Your task to perform on an android device: open wifi settings Image 0: 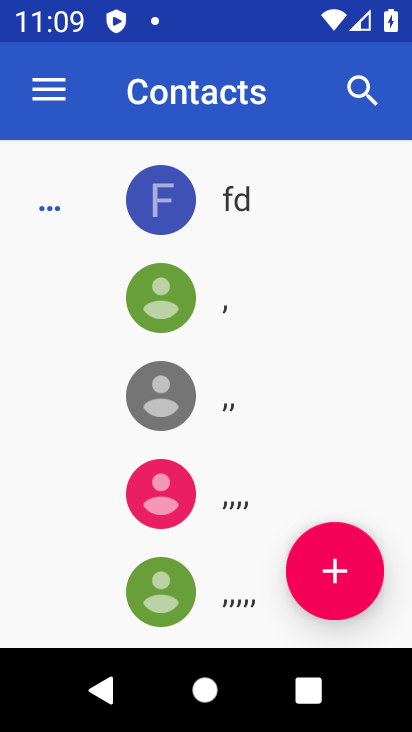
Step 0: press home button
Your task to perform on an android device: open wifi settings Image 1: 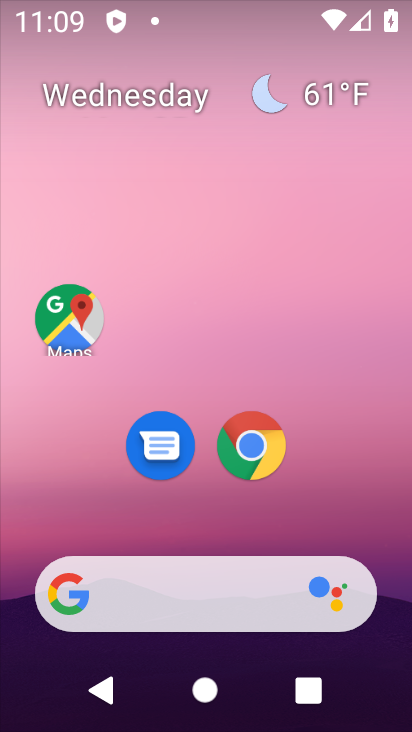
Step 1: drag from (370, 469) to (341, 103)
Your task to perform on an android device: open wifi settings Image 2: 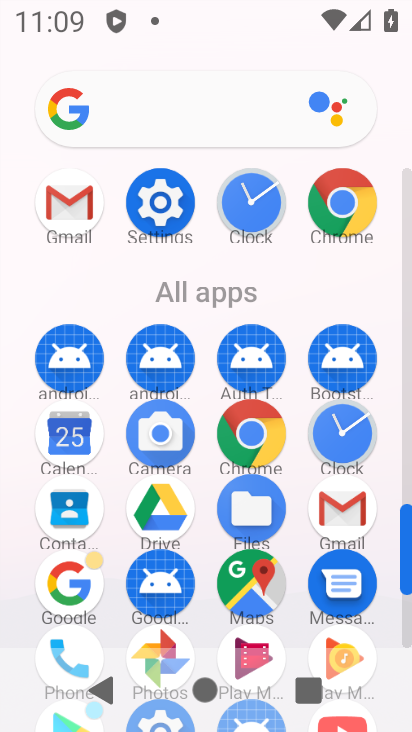
Step 2: click (157, 198)
Your task to perform on an android device: open wifi settings Image 3: 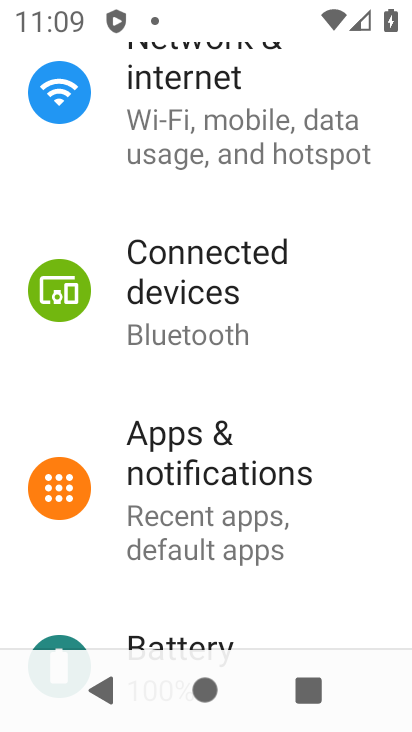
Step 3: drag from (157, 195) to (169, 513)
Your task to perform on an android device: open wifi settings Image 4: 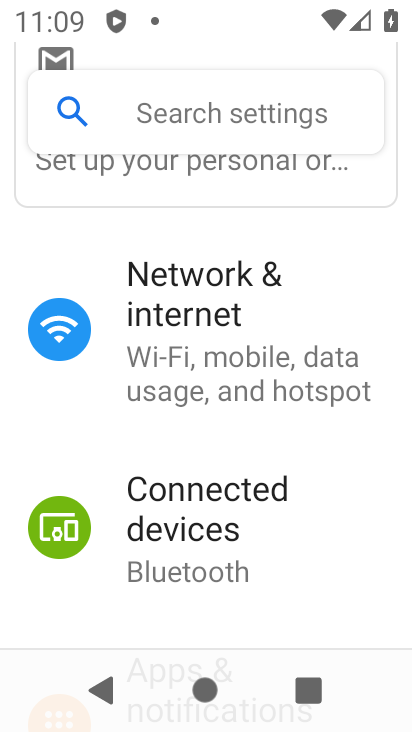
Step 4: click (177, 326)
Your task to perform on an android device: open wifi settings Image 5: 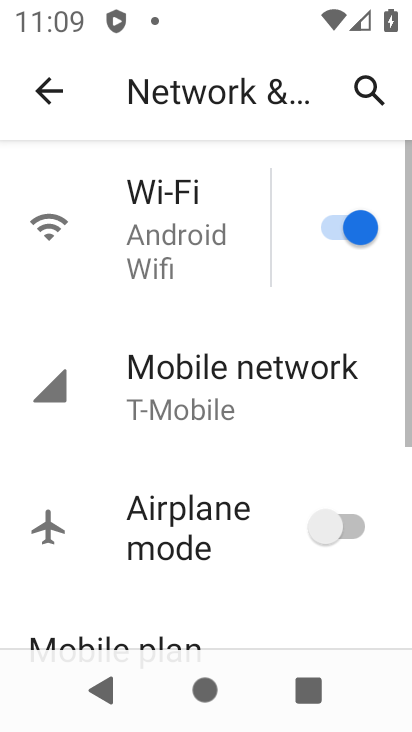
Step 5: click (181, 262)
Your task to perform on an android device: open wifi settings Image 6: 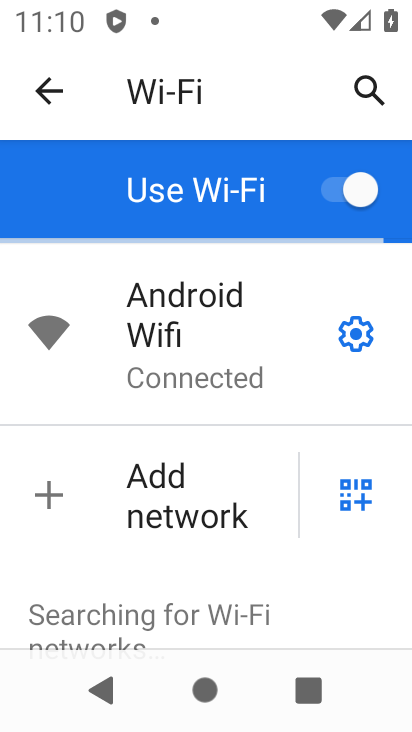
Step 6: task complete